Your task to perform on an android device: snooze an email in the gmail app Image 0: 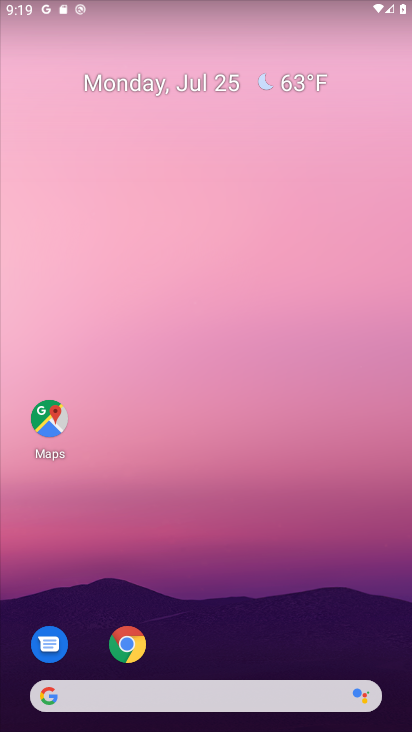
Step 0: drag from (184, 682) to (212, 174)
Your task to perform on an android device: snooze an email in the gmail app Image 1: 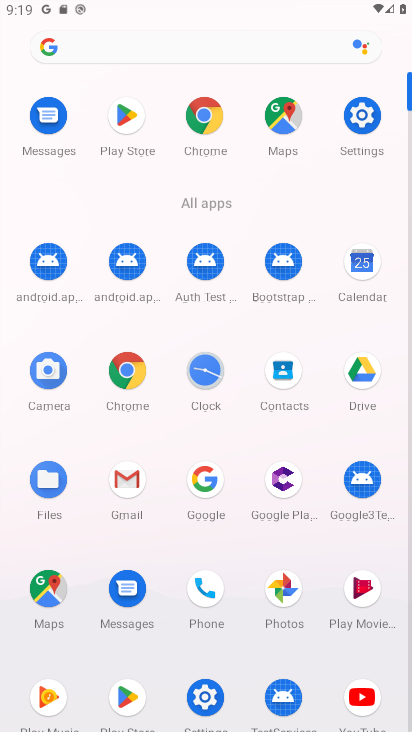
Step 1: click (132, 483)
Your task to perform on an android device: snooze an email in the gmail app Image 2: 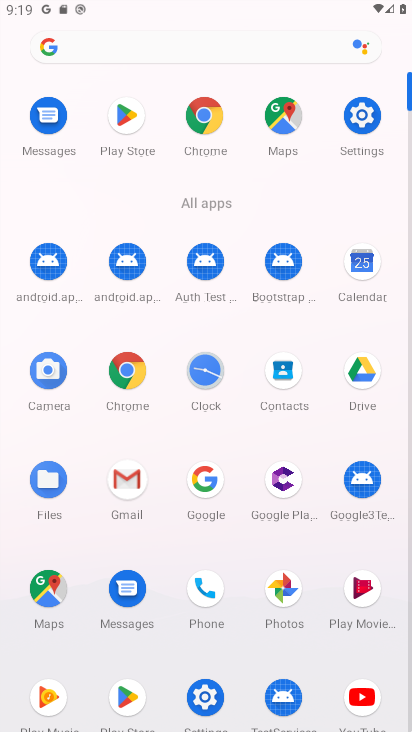
Step 2: click (119, 491)
Your task to perform on an android device: snooze an email in the gmail app Image 3: 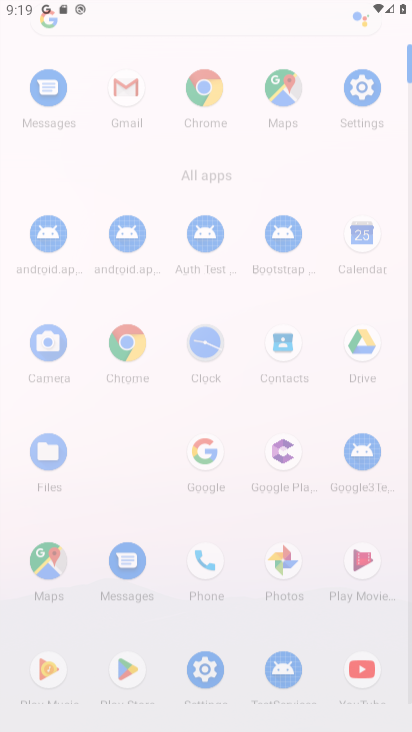
Step 3: click (118, 491)
Your task to perform on an android device: snooze an email in the gmail app Image 4: 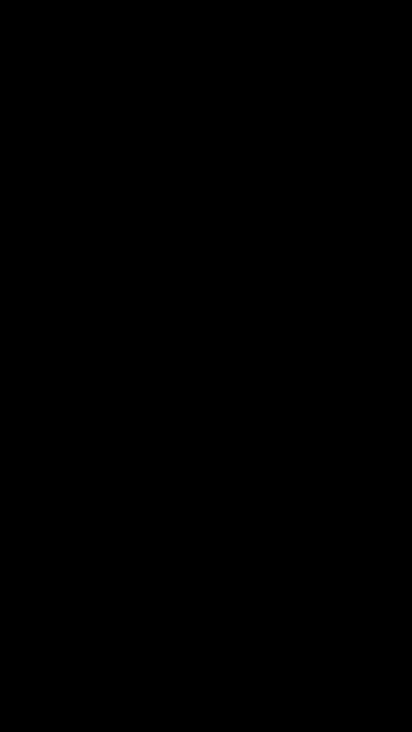
Step 4: click (117, 491)
Your task to perform on an android device: snooze an email in the gmail app Image 5: 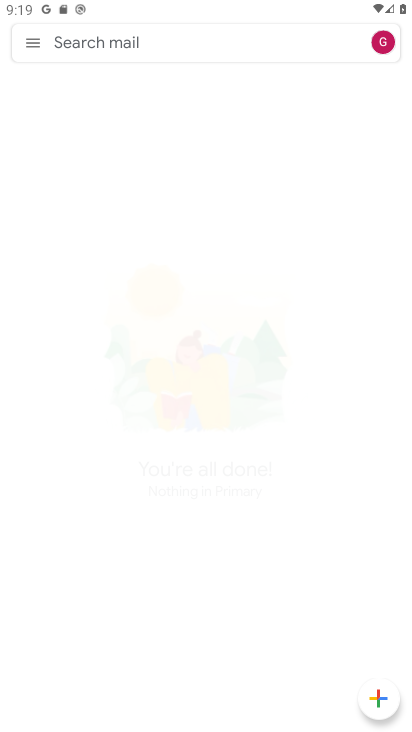
Step 5: click (31, 45)
Your task to perform on an android device: snooze an email in the gmail app Image 6: 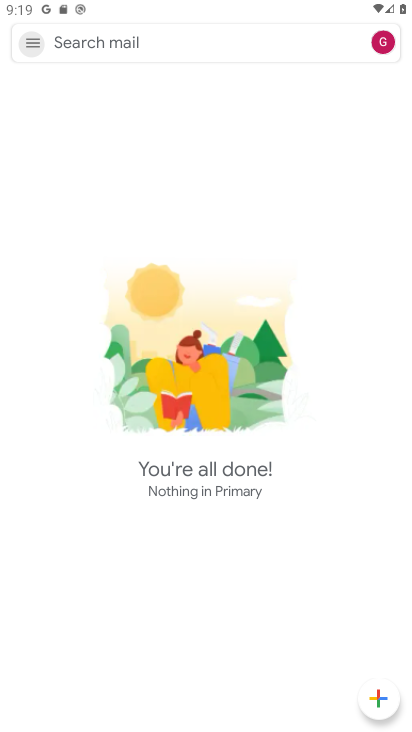
Step 6: click (31, 41)
Your task to perform on an android device: snooze an email in the gmail app Image 7: 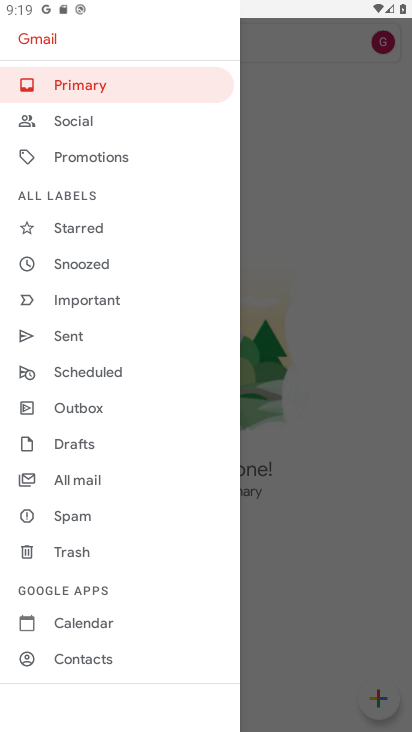
Step 7: click (85, 468)
Your task to perform on an android device: snooze an email in the gmail app Image 8: 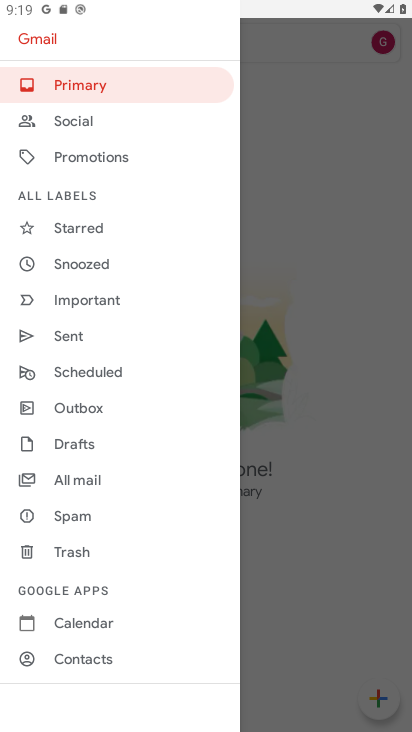
Step 8: click (91, 468)
Your task to perform on an android device: snooze an email in the gmail app Image 9: 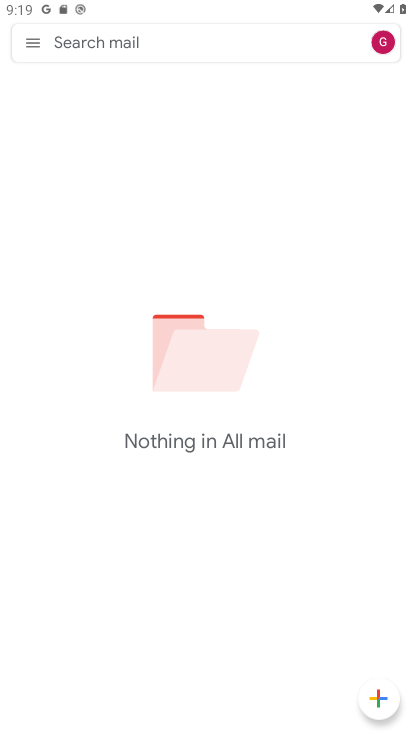
Step 9: task complete